Your task to perform on an android device: set the timer Image 0: 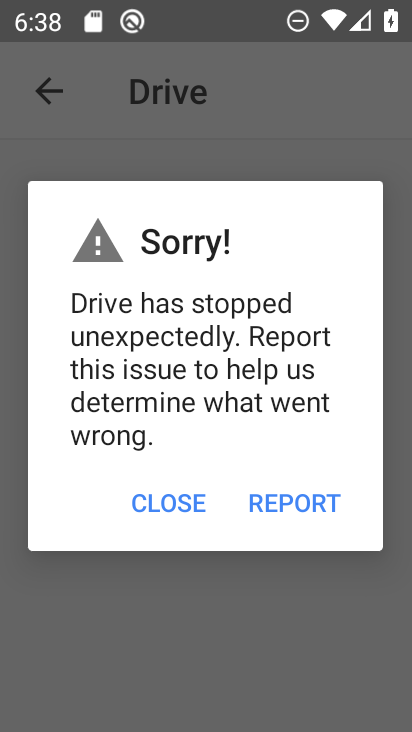
Step 0: press home button
Your task to perform on an android device: set the timer Image 1: 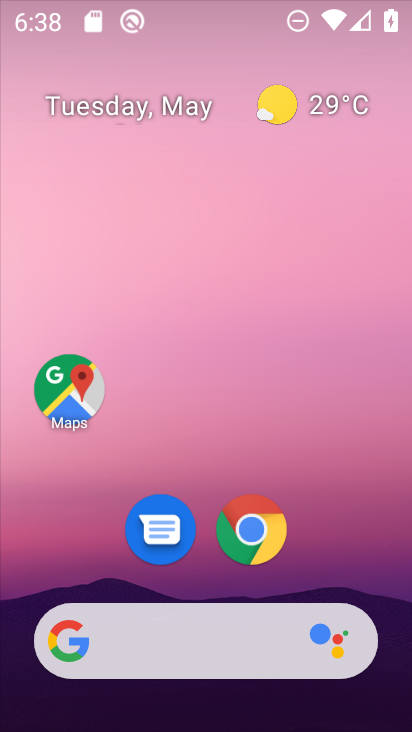
Step 1: drag from (379, 667) to (294, 485)
Your task to perform on an android device: set the timer Image 2: 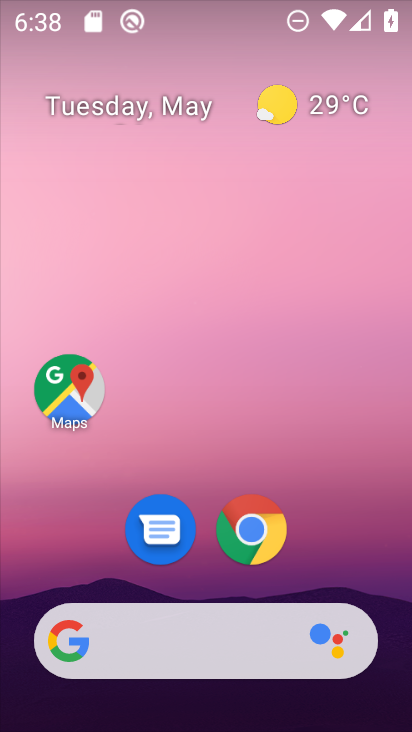
Step 2: drag from (337, 569) to (282, 137)
Your task to perform on an android device: set the timer Image 3: 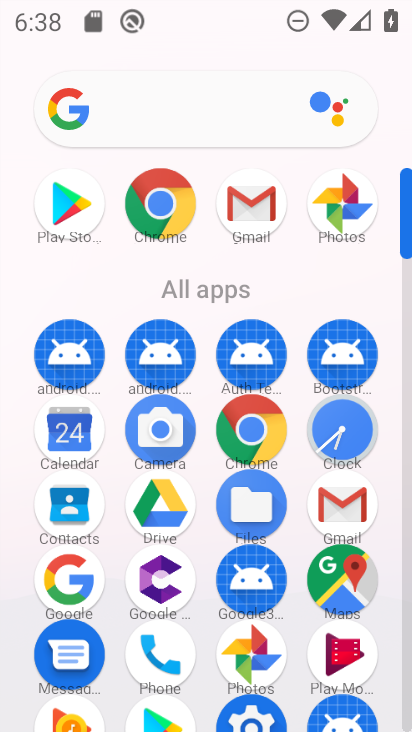
Step 3: click (339, 425)
Your task to perform on an android device: set the timer Image 4: 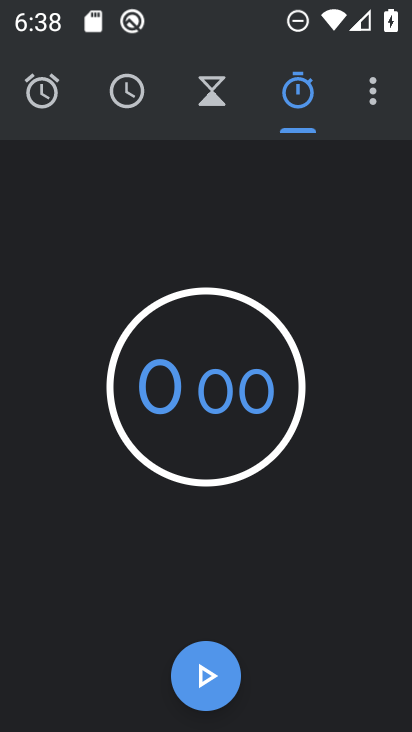
Step 4: click (369, 92)
Your task to perform on an android device: set the timer Image 5: 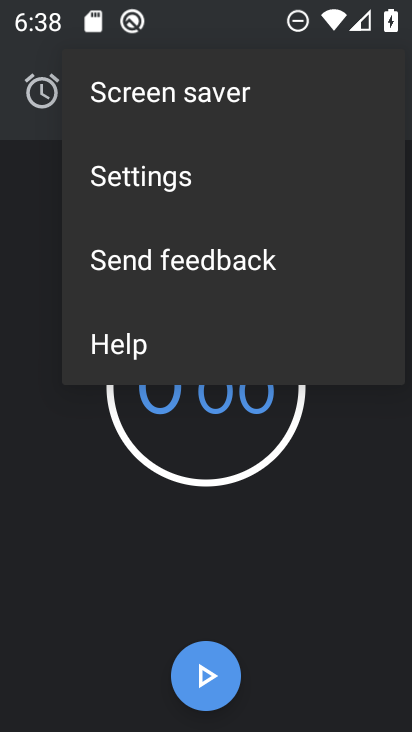
Step 5: click (246, 175)
Your task to perform on an android device: set the timer Image 6: 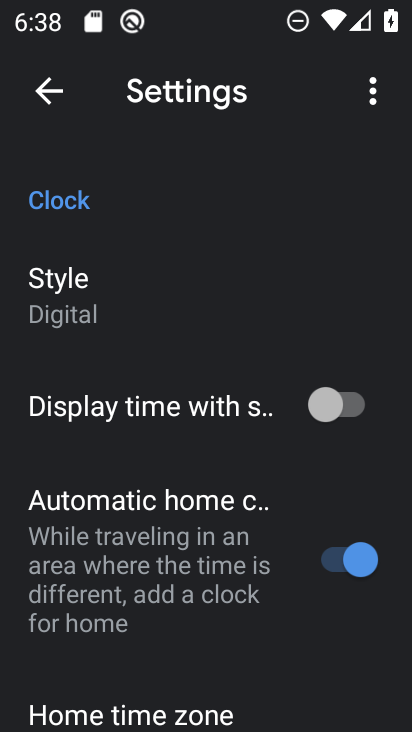
Step 6: drag from (224, 642) to (184, 344)
Your task to perform on an android device: set the timer Image 7: 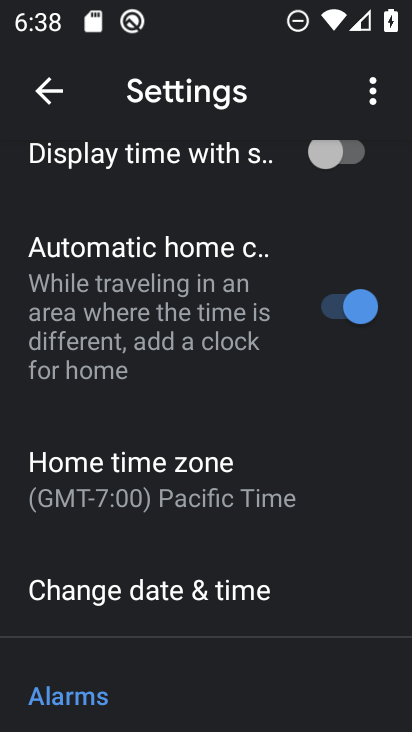
Step 7: click (200, 498)
Your task to perform on an android device: set the timer Image 8: 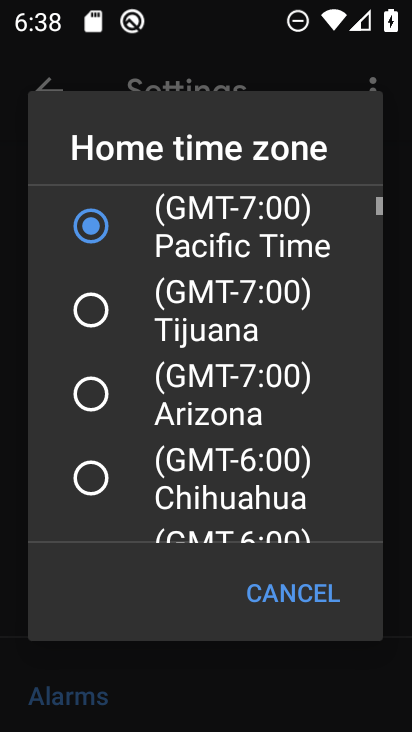
Step 8: click (187, 489)
Your task to perform on an android device: set the timer Image 9: 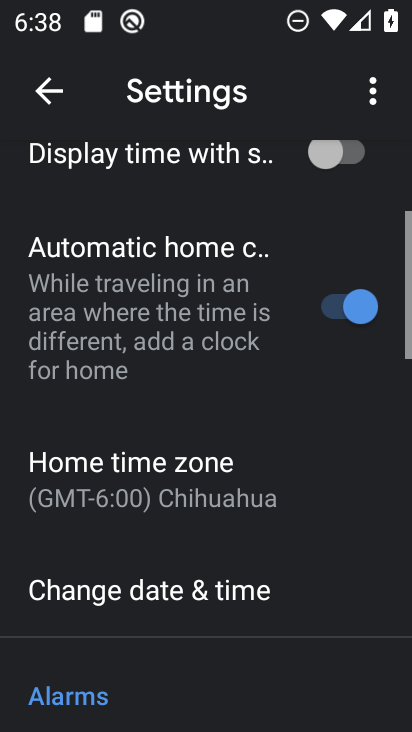
Step 9: task complete